Your task to perform on an android device: Go to ESPN.com Image 0: 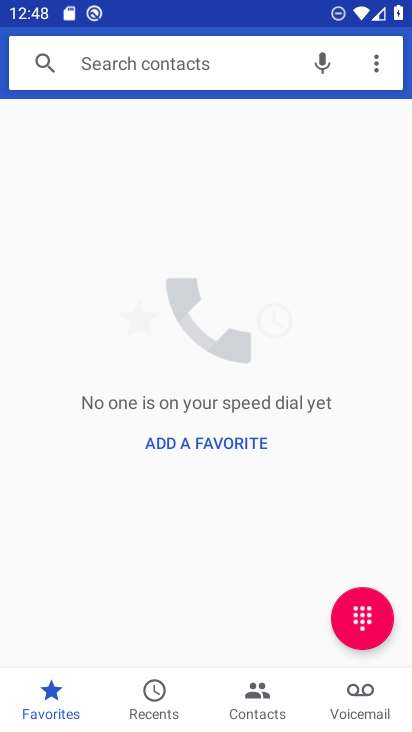
Step 0: press home button
Your task to perform on an android device: Go to ESPN.com Image 1: 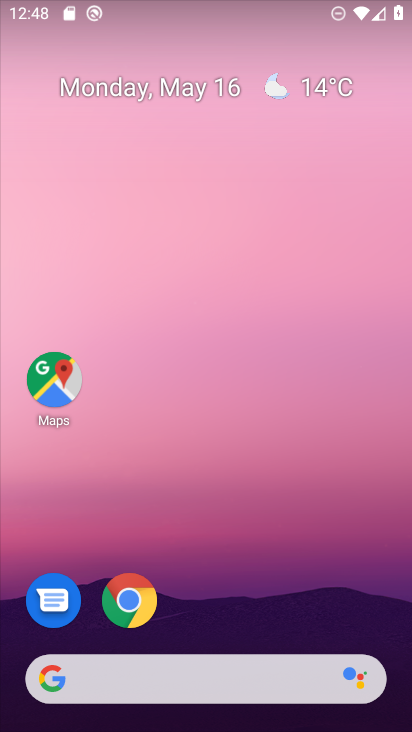
Step 1: click (126, 597)
Your task to perform on an android device: Go to ESPN.com Image 2: 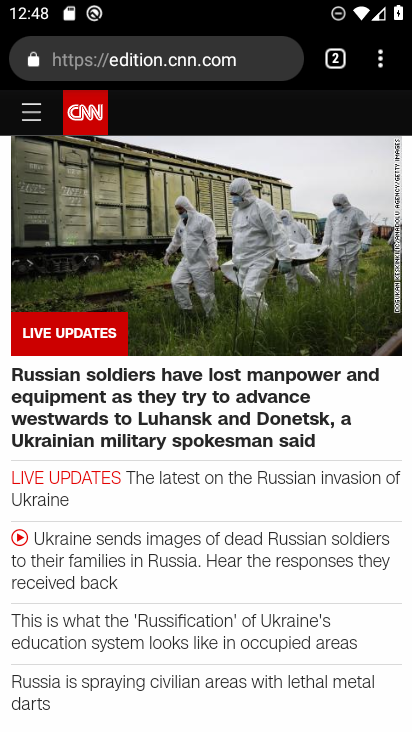
Step 2: click (334, 62)
Your task to perform on an android device: Go to ESPN.com Image 3: 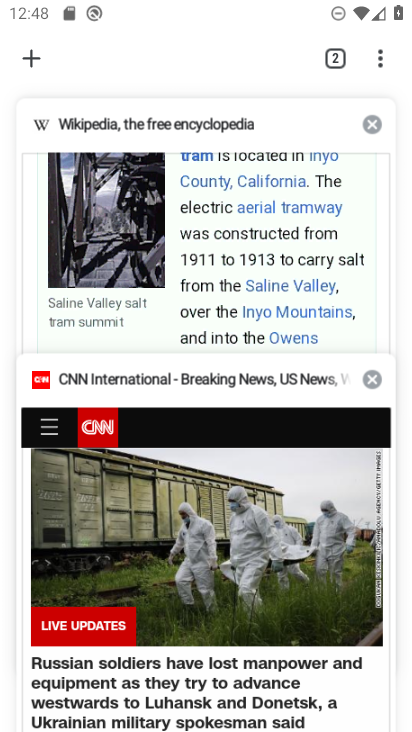
Step 3: click (372, 120)
Your task to perform on an android device: Go to ESPN.com Image 4: 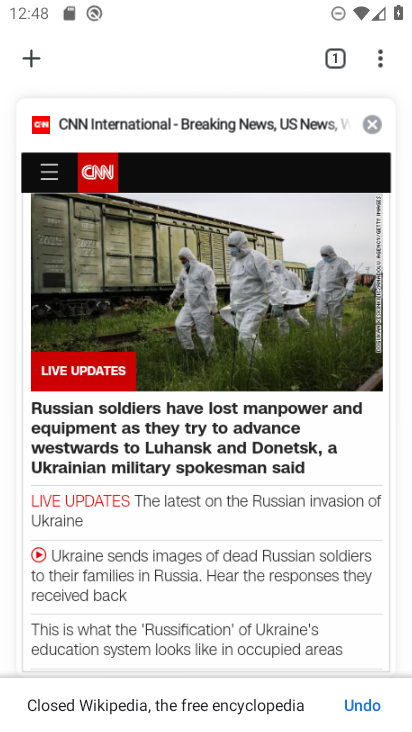
Step 4: click (371, 171)
Your task to perform on an android device: Go to ESPN.com Image 5: 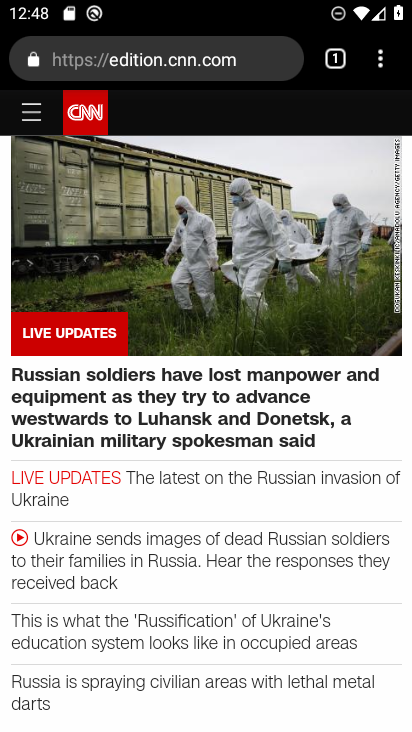
Step 5: click (335, 50)
Your task to perform on an android device: Go to ESPN.com Image 6: 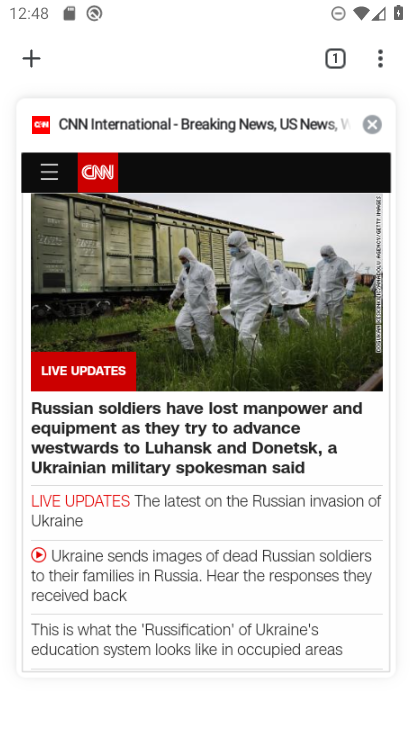
Step 6: click (372, 119)
Your task to perform on an android device: Go to ESPN.com Image 7: 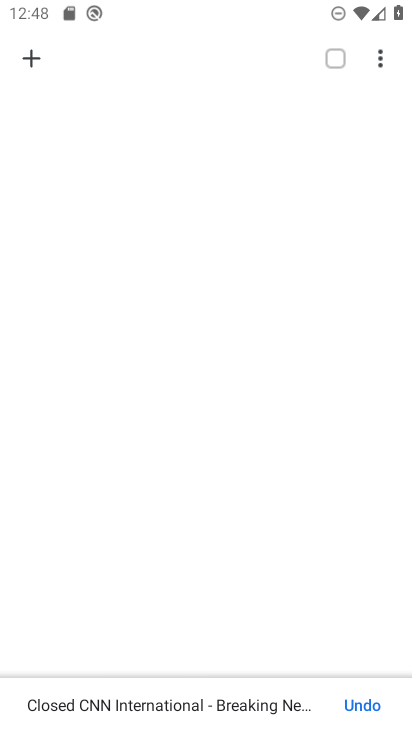
Step 7: click (34, 63)
Your task to perform on an android device: Go to ESPN.com Image 8: 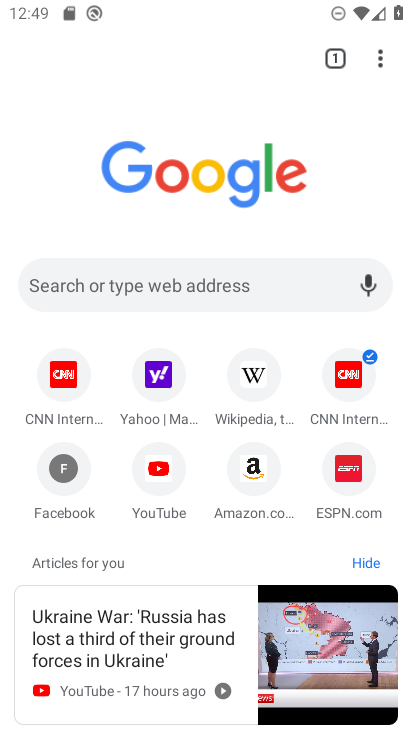
Step 8: click (344, 471)
Your task to perform on an android device: Go to ESPN.com Image 9: 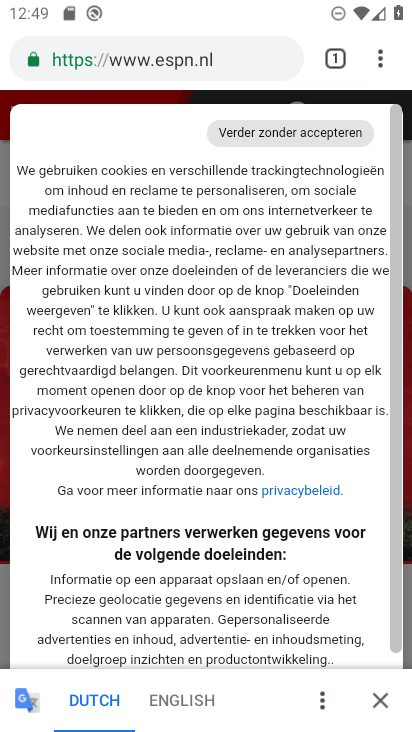
Step 9: click (379, 697)
Your task to perform on an android device: Go to ESPN.com Image 10: 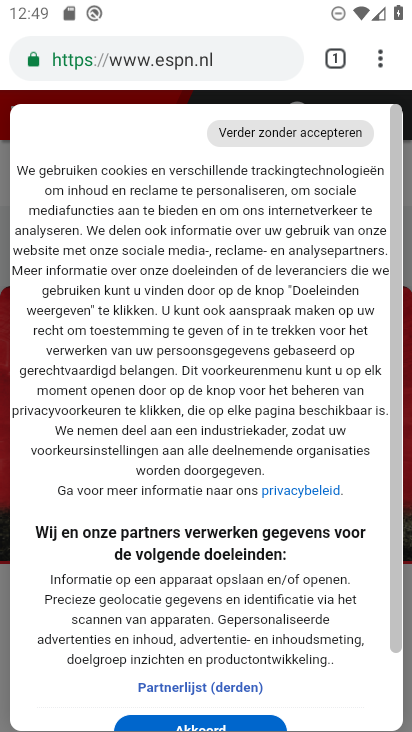
Step 10: drag from (276, 674) to (299, 198)
Your task to perform on an android device: Go to ESPN.com Image 11: 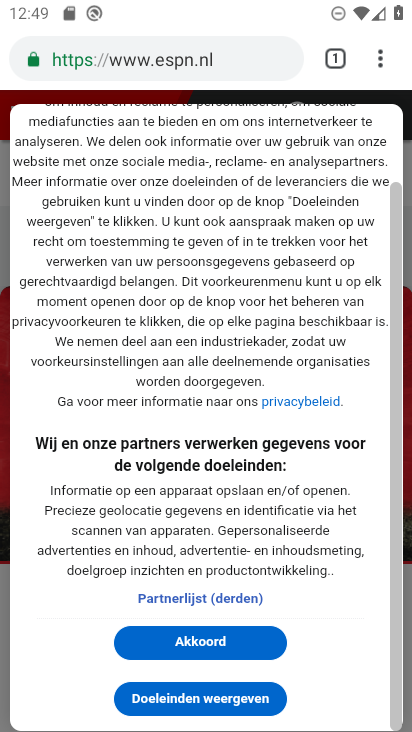
Step 11: click (207, 636)
Your task to perform on an android device: Go to ESPN.com Image 12: 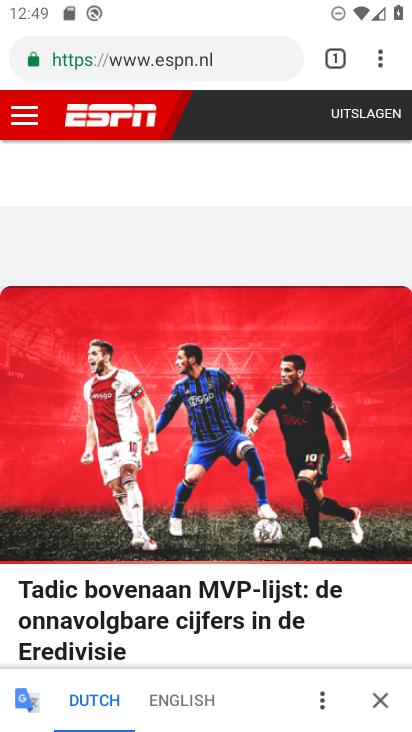
Step 12: task complete